Your task to perform on an android device: Add "alienware area 51" to the cart on costco, then select checkout. Image 0: 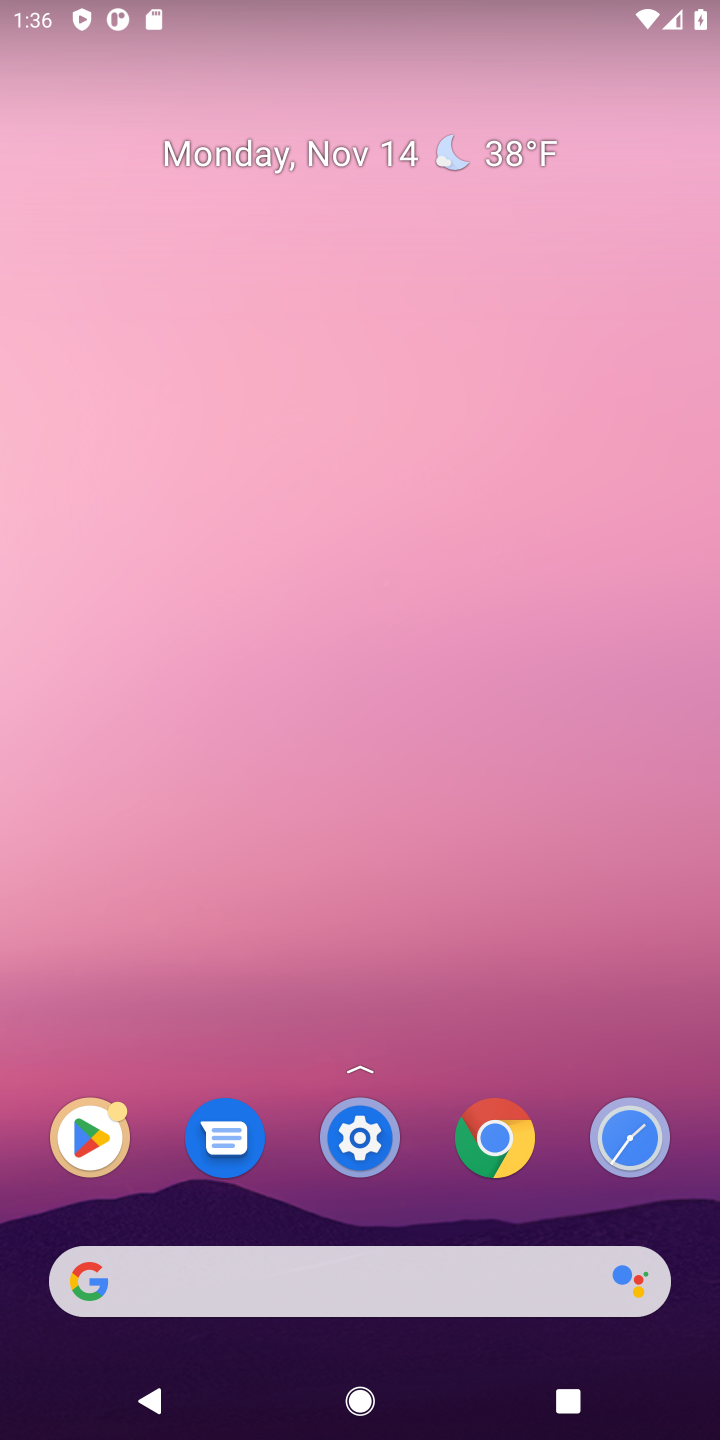
Step 0: click (508, 1111)
Your task to perform on an android device: Add "alienware area 51" to the cart on costco, then select checkout. Image 1: 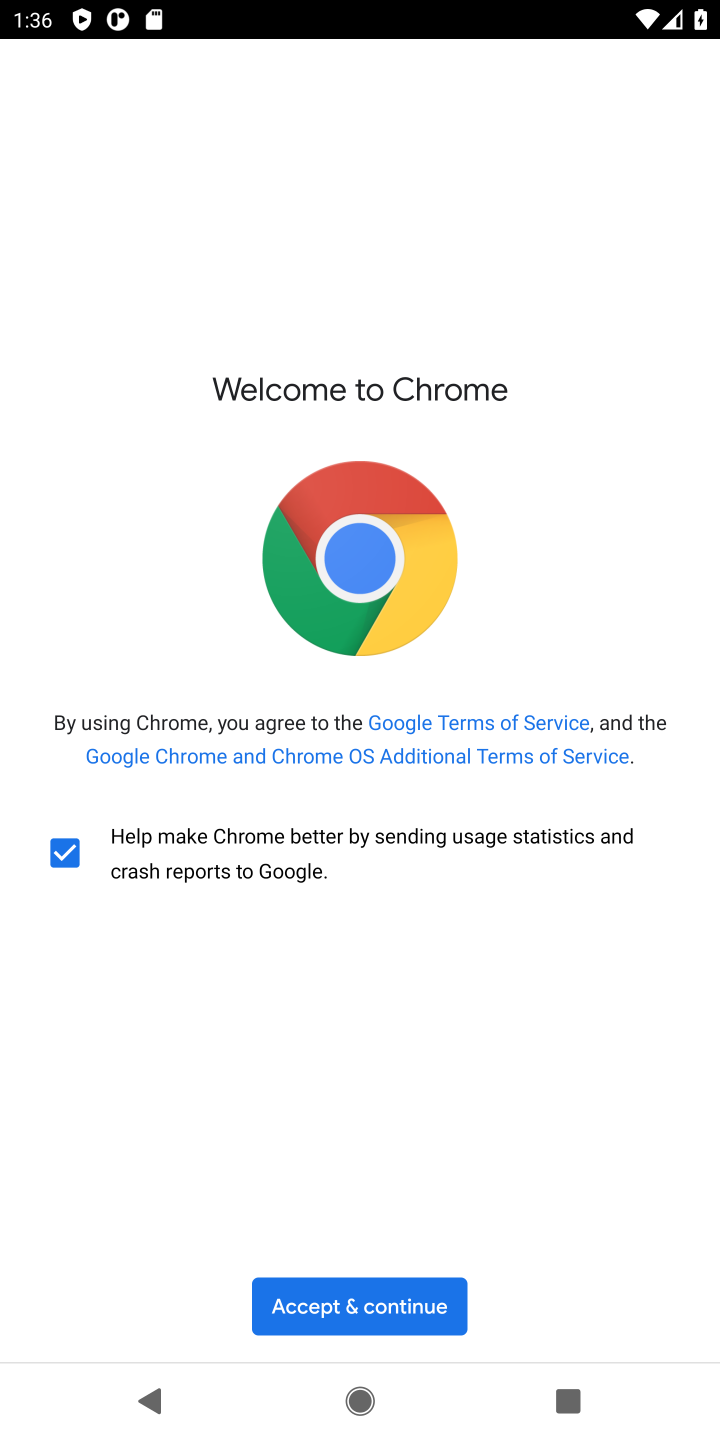
Step 1: click (408, 1311)
Your task to perform on an android device: Add "alienware area 51" to the cart on costco, then select checkout. Image 2: 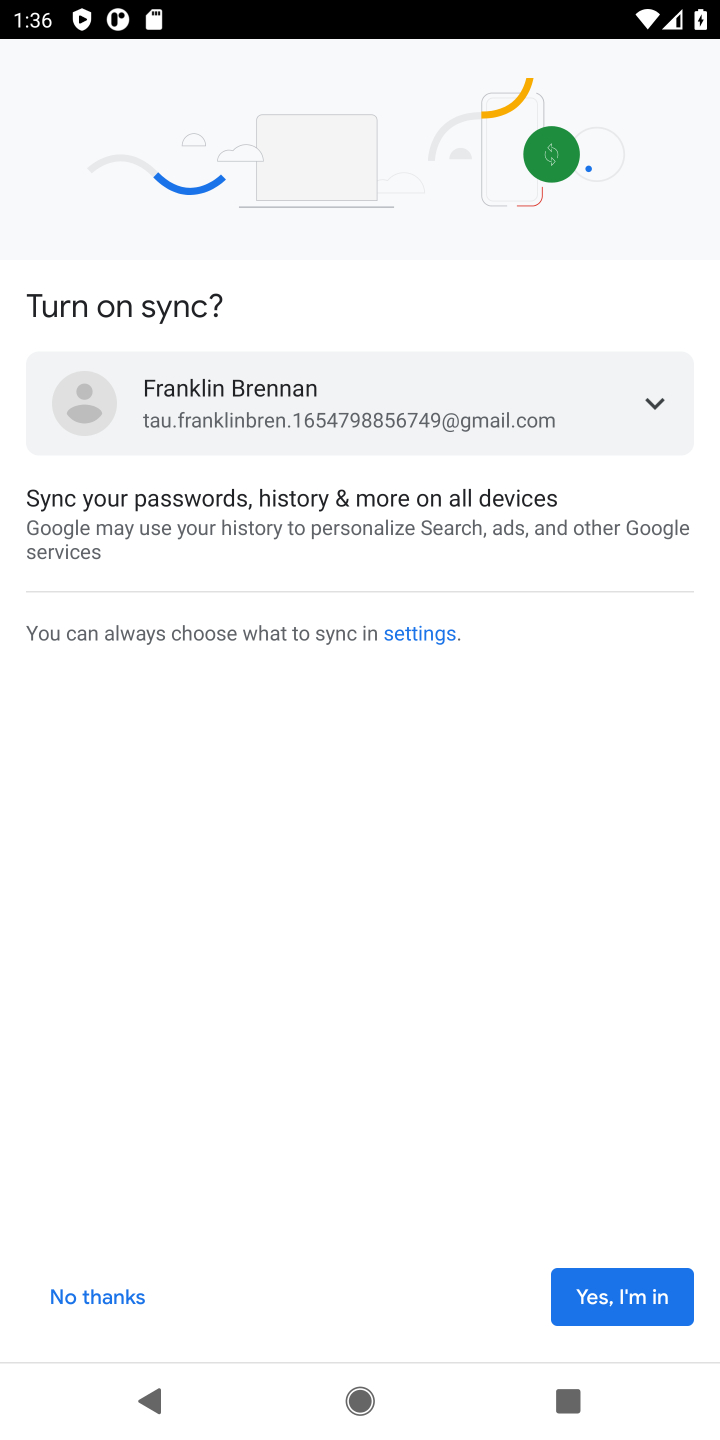
Step 2: click (623, 1292)
Your task to perform on an android device: Add "alienware area 51" to the cart on costco, then select checkout. Image 3: 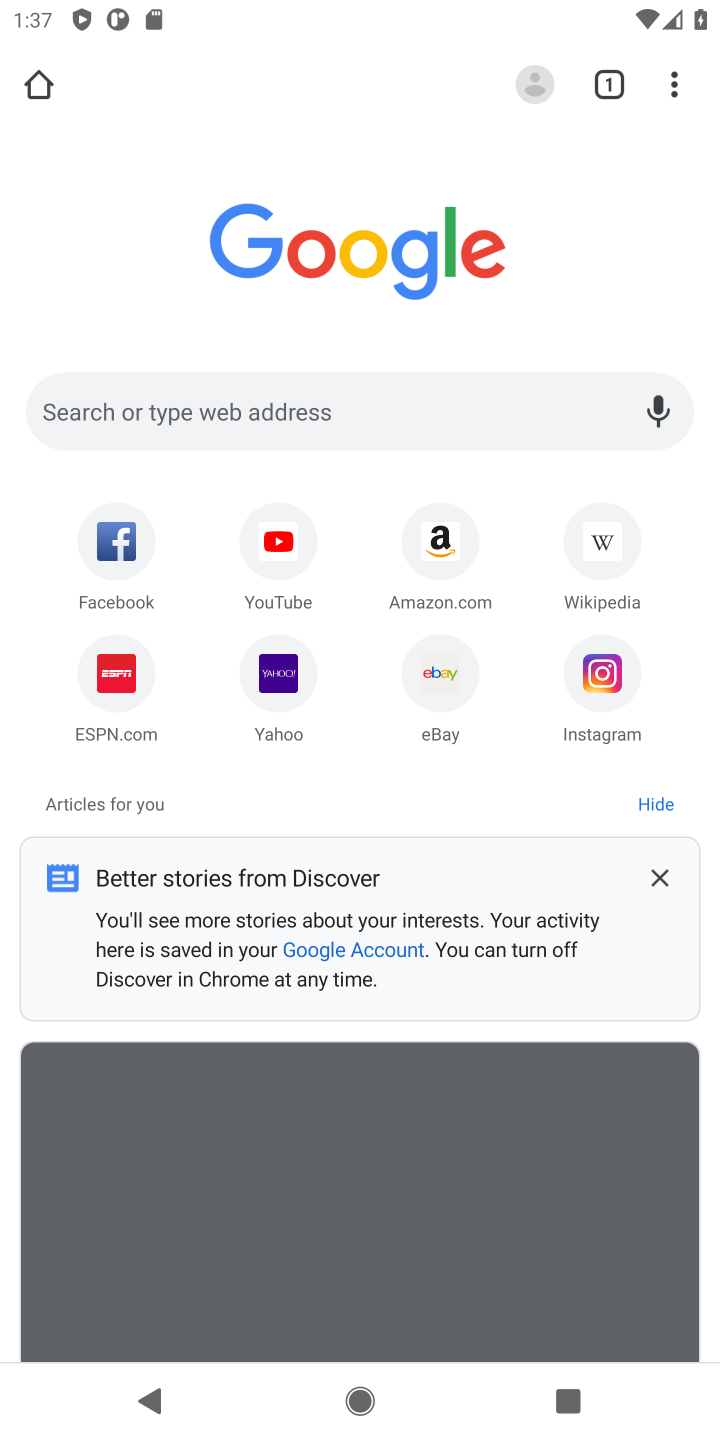
Step 3: click (404, 400)
Your task to perform on an android device: Add "alienware area 51" to the cart on costco, then select checkout. Image 4: 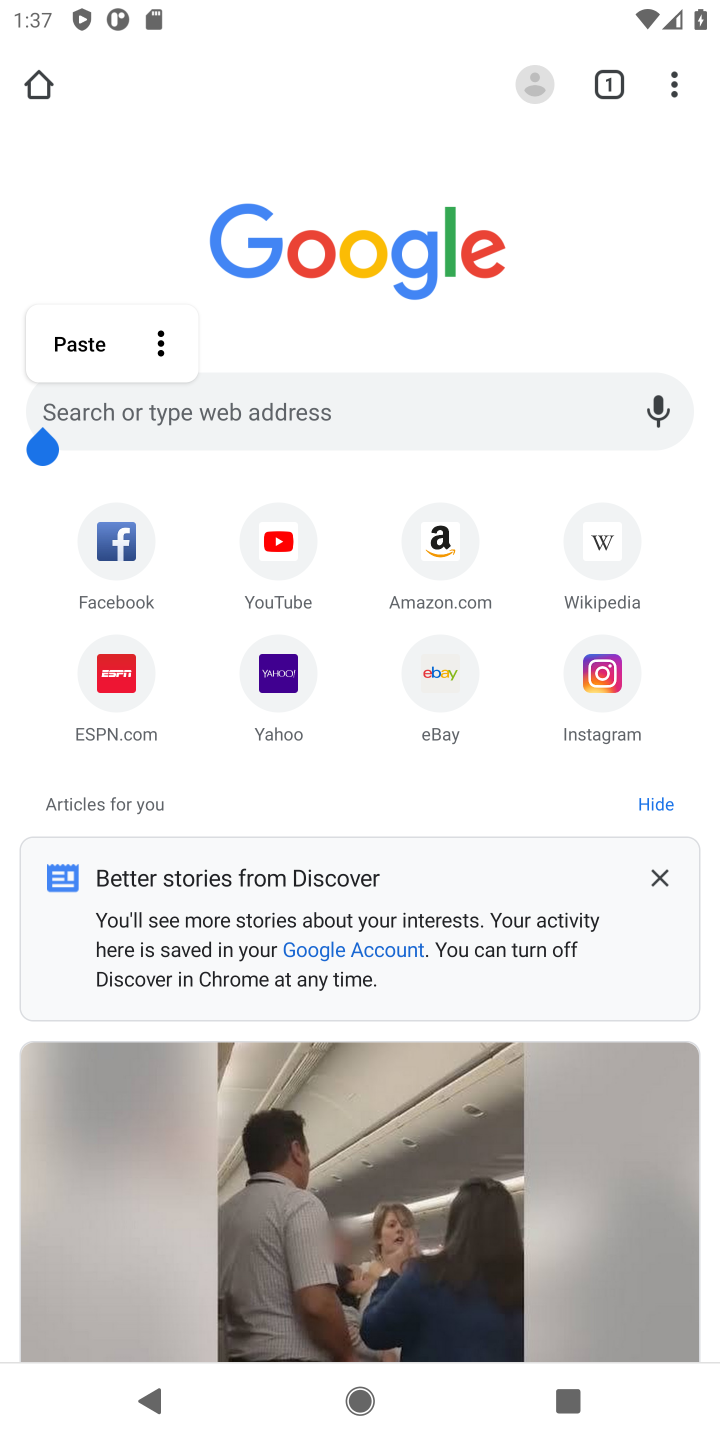
Step 4: press enter
Your task to perform on an android device: Add "alienware area 51" to the cart on costco, then select checkout. Image 5: 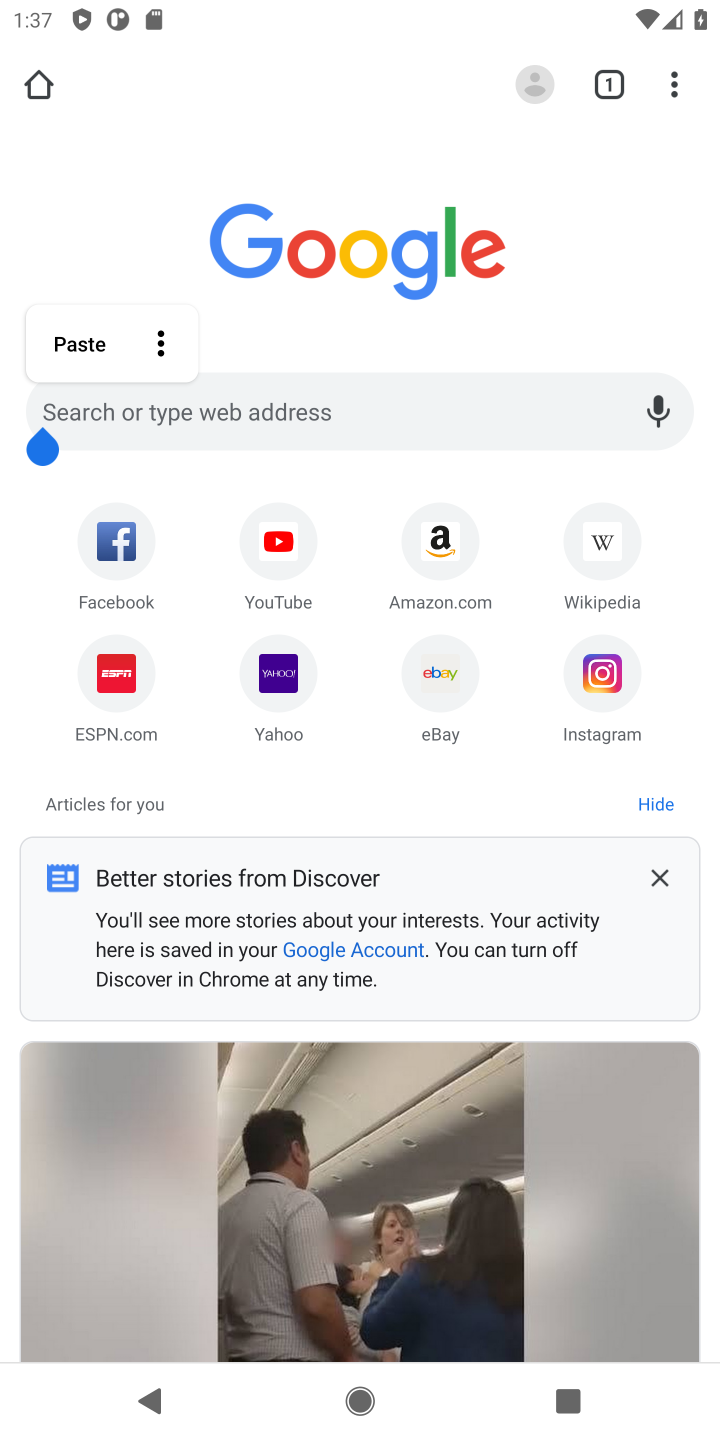
Step 5: type "costco"
Your task to perform on an android device: Add "alienware area 51" to the cart on costco, then select checkout. Image 6: 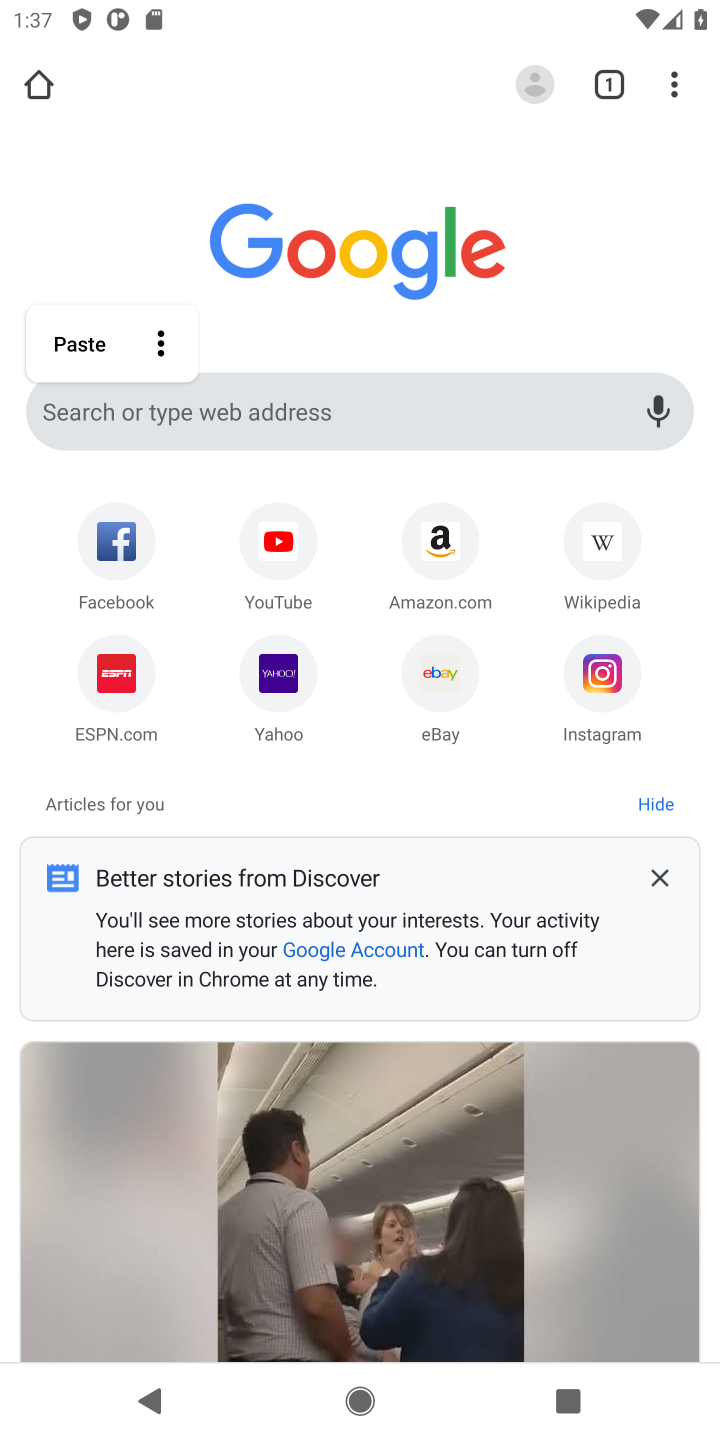
Step 6: click (432, 404)
Your task to perform on an android device: Add "alienware area 51" to the cart on costco, then select checkout. Image 7: 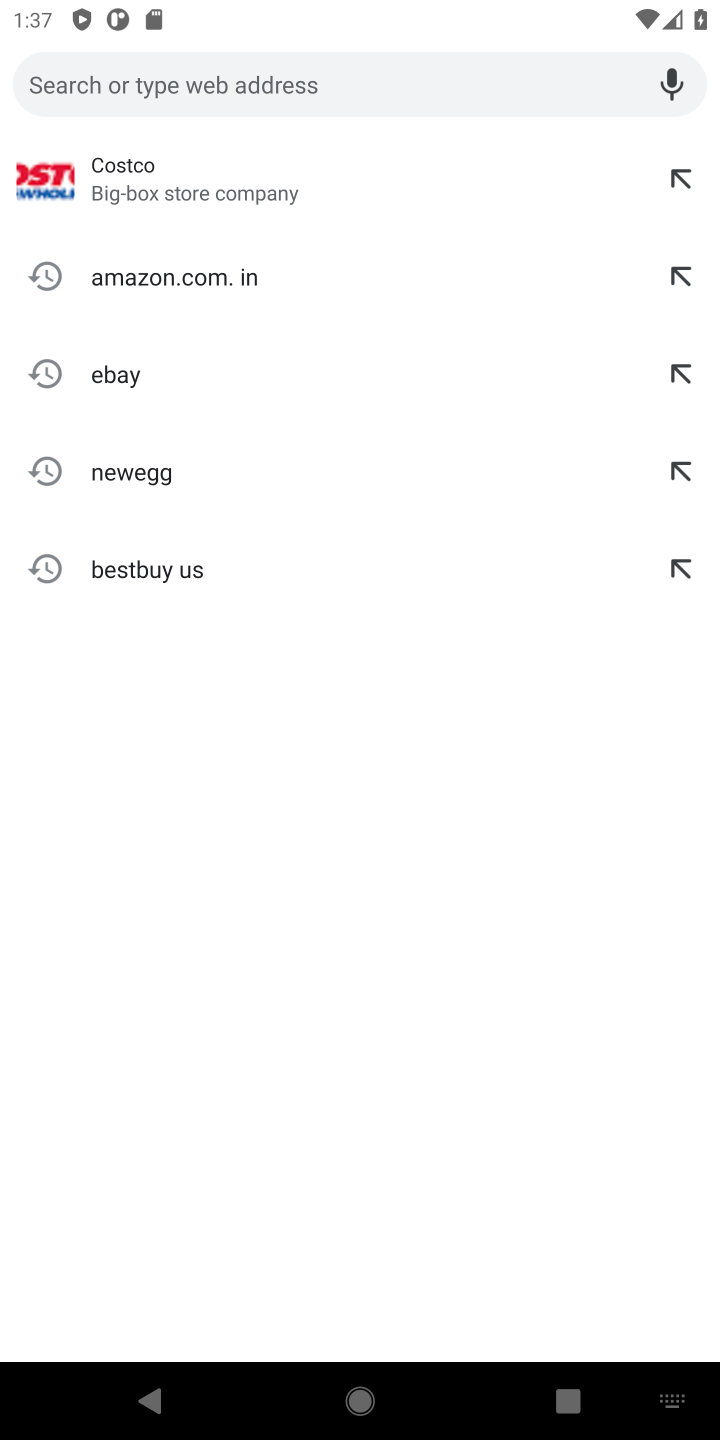
Step 7: click (147, 175)
Your task to perform on an android device: Add "alienware area 51" to the cart on costco, then select checkout. Image 8: 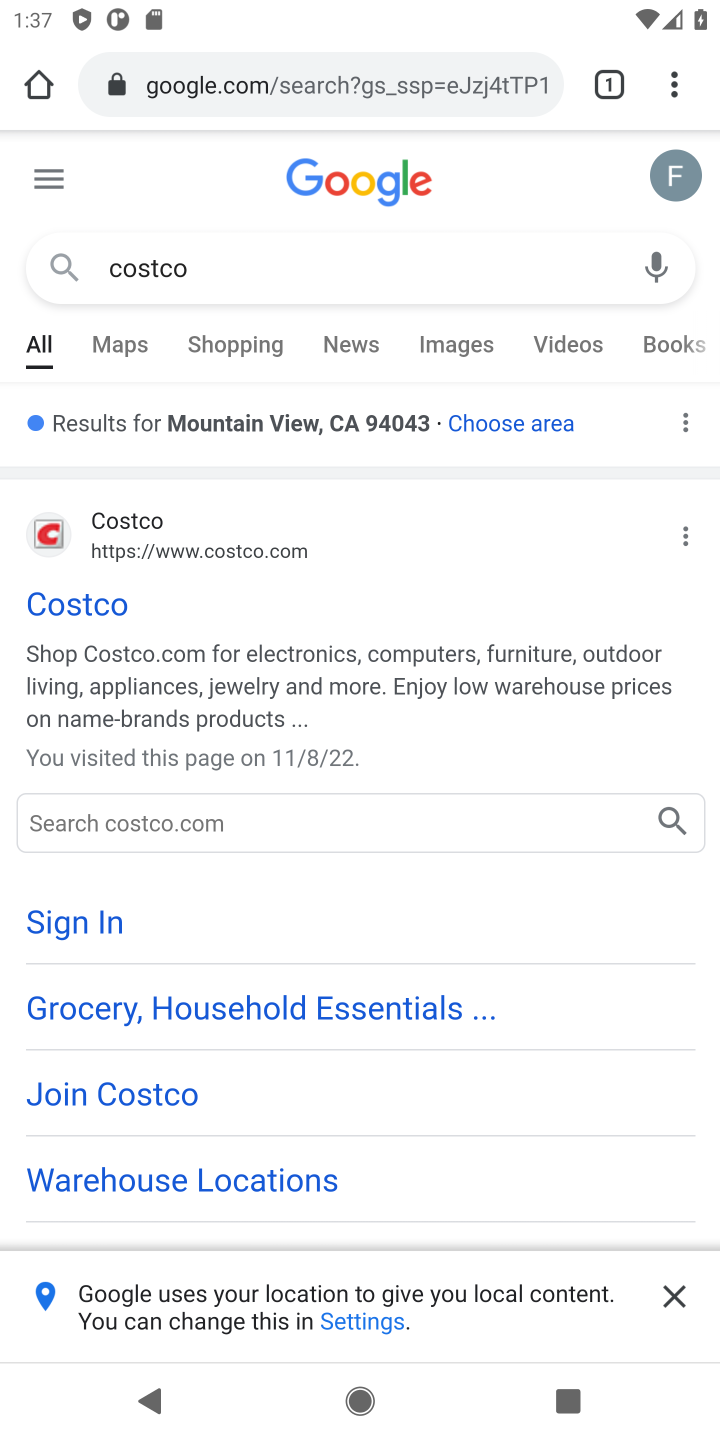
Step 8: click (259, 541)
Your task to perform on an android device: Add "alienware area 51" to the cart on costco, then select checkout. Image 9: 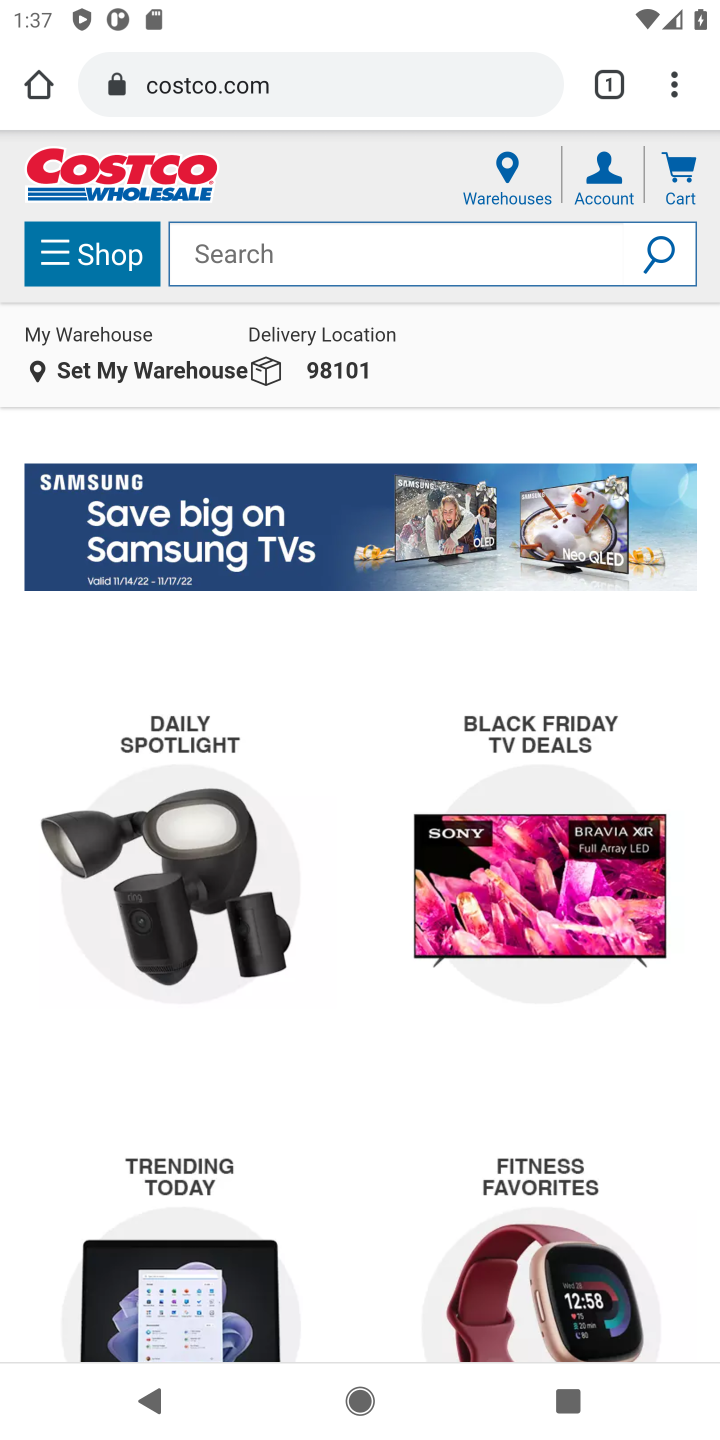
Step 9: click (300, 244)
Your task to perform on an android device: Add "alienware area 51" to the cart on costco, then select checkout. Image 10: 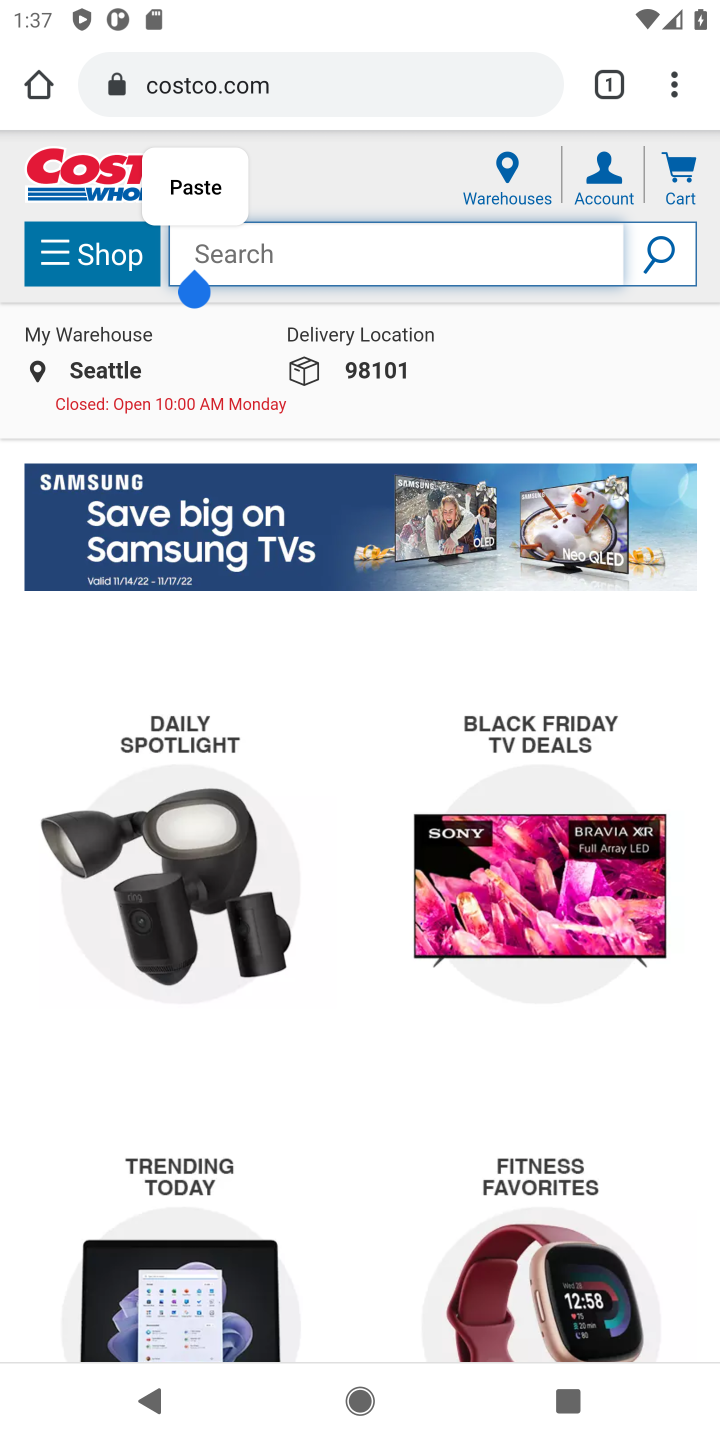
Step 10: type "alienware area 51"
Your task to perform on an android device: Add "alienware area 51" to the cart on costco, then select checkout. Image 11: 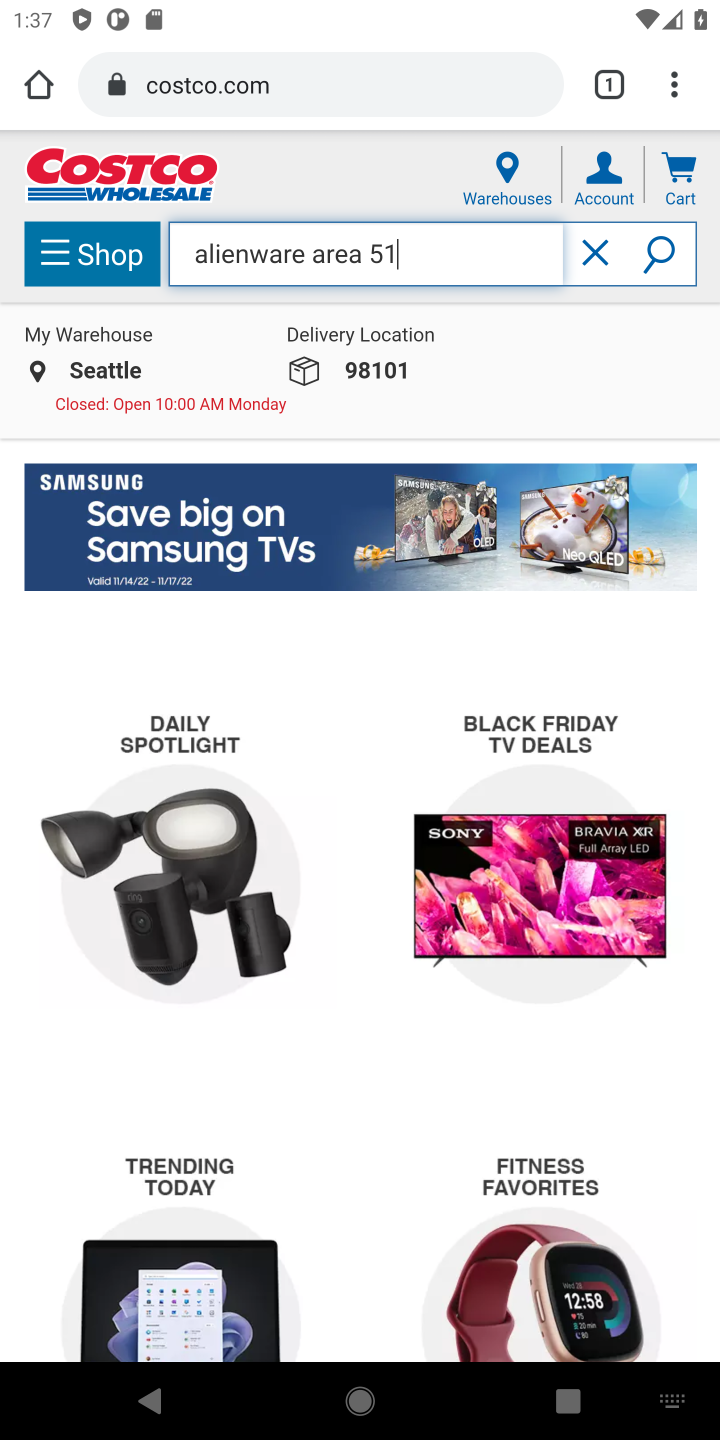
Step 11: press enter
Your task to perform on an android device: Add "alienware area 51" to the cart on costco, then select checkout. Image 12: 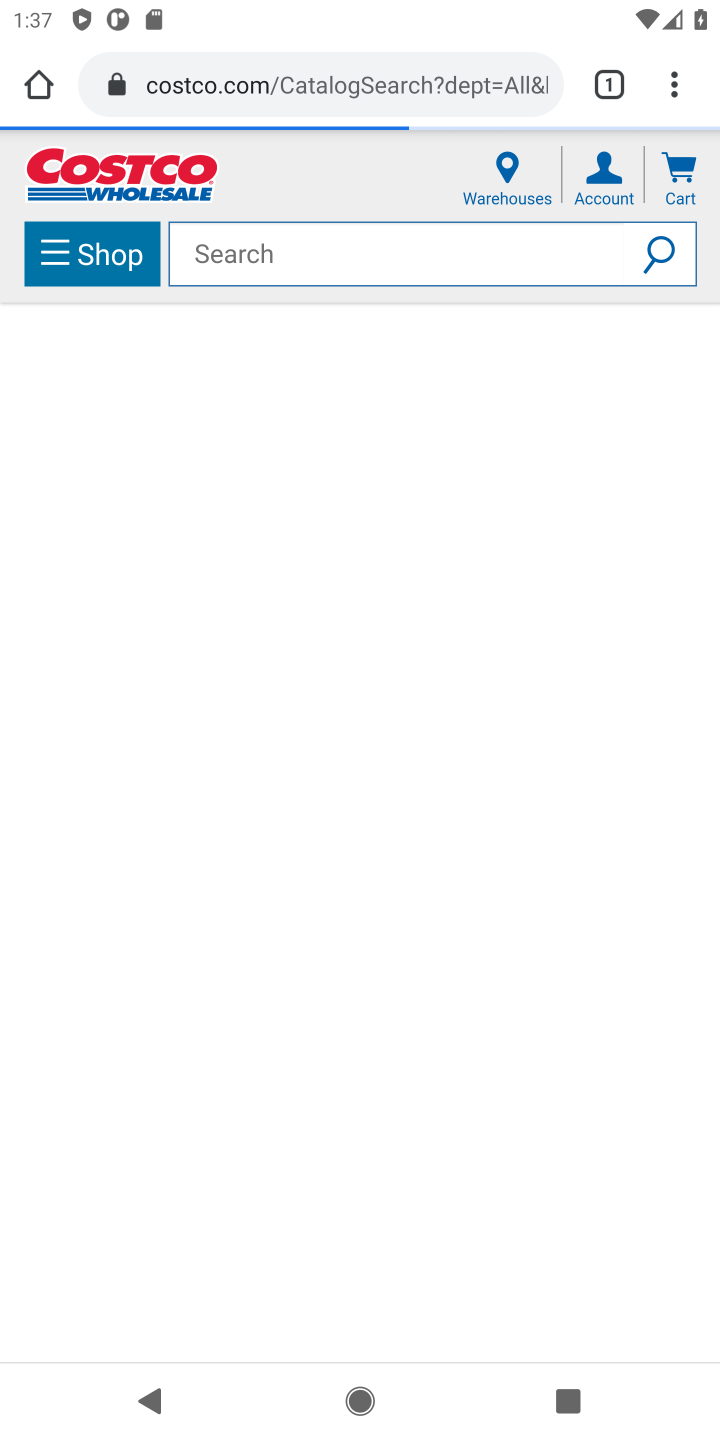
Step 12: click (679, 246)
Your task to perform on an android device: Add "alienware area 51" to the cart on costco, then select checkout. Image 13: 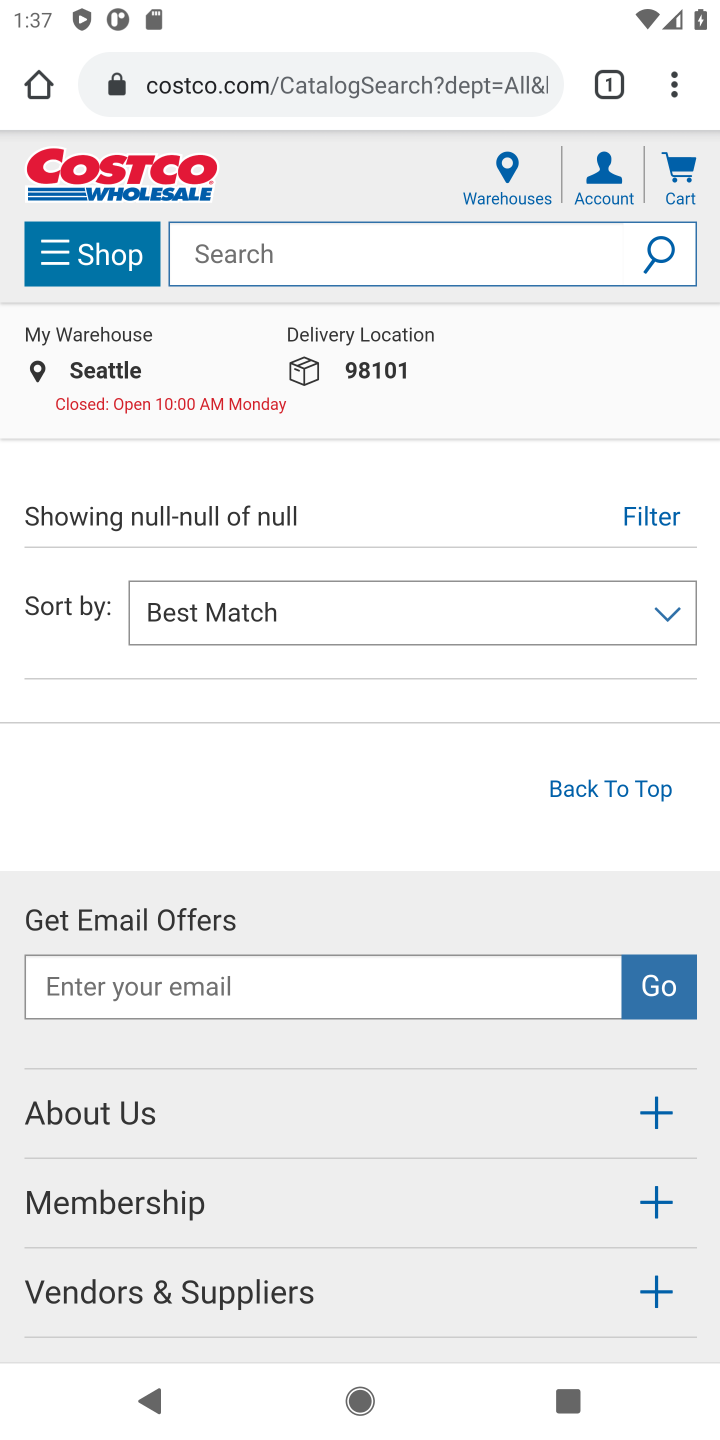
Step 13: click (441, 242)
Your task to perform on an android device: Add "alienware area 51" to the cart on costco, then select checkout. Image 14: 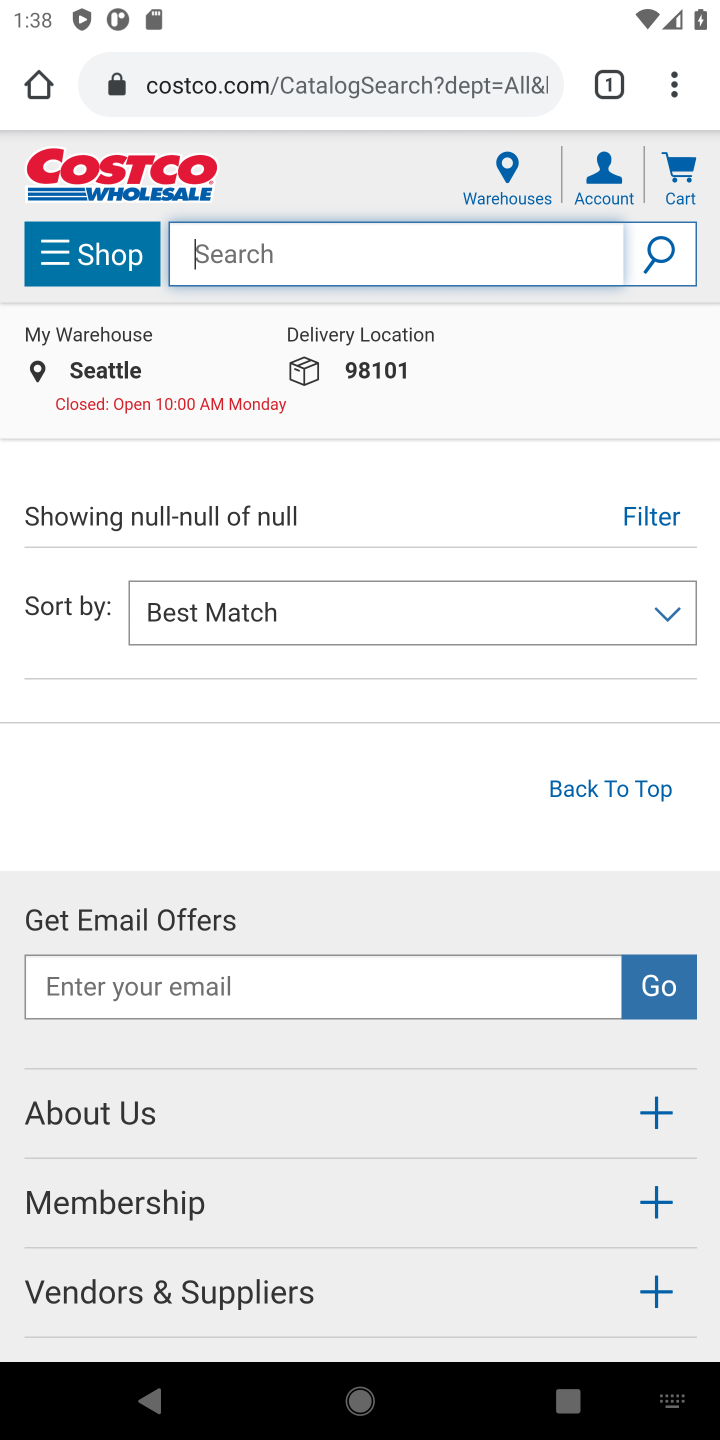
Step 14: type "alienware area 51"
Your task to perform on an android device: Add "alienware area 51" to the cart on costco, then select checkout. Image 15: 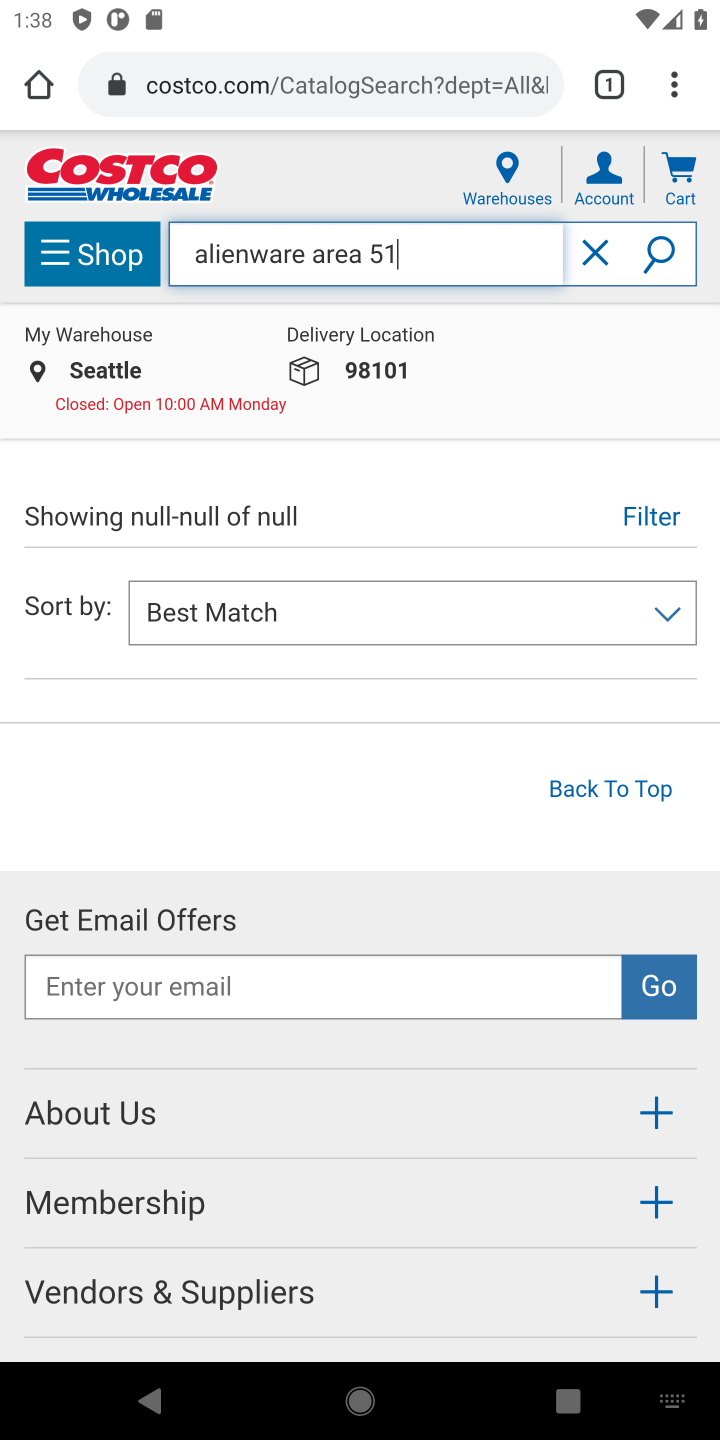
Step 15: press enter
Your task to perform on an android device: Add "alienware area 51" to the cart on costco, then select checkout. Image 16: 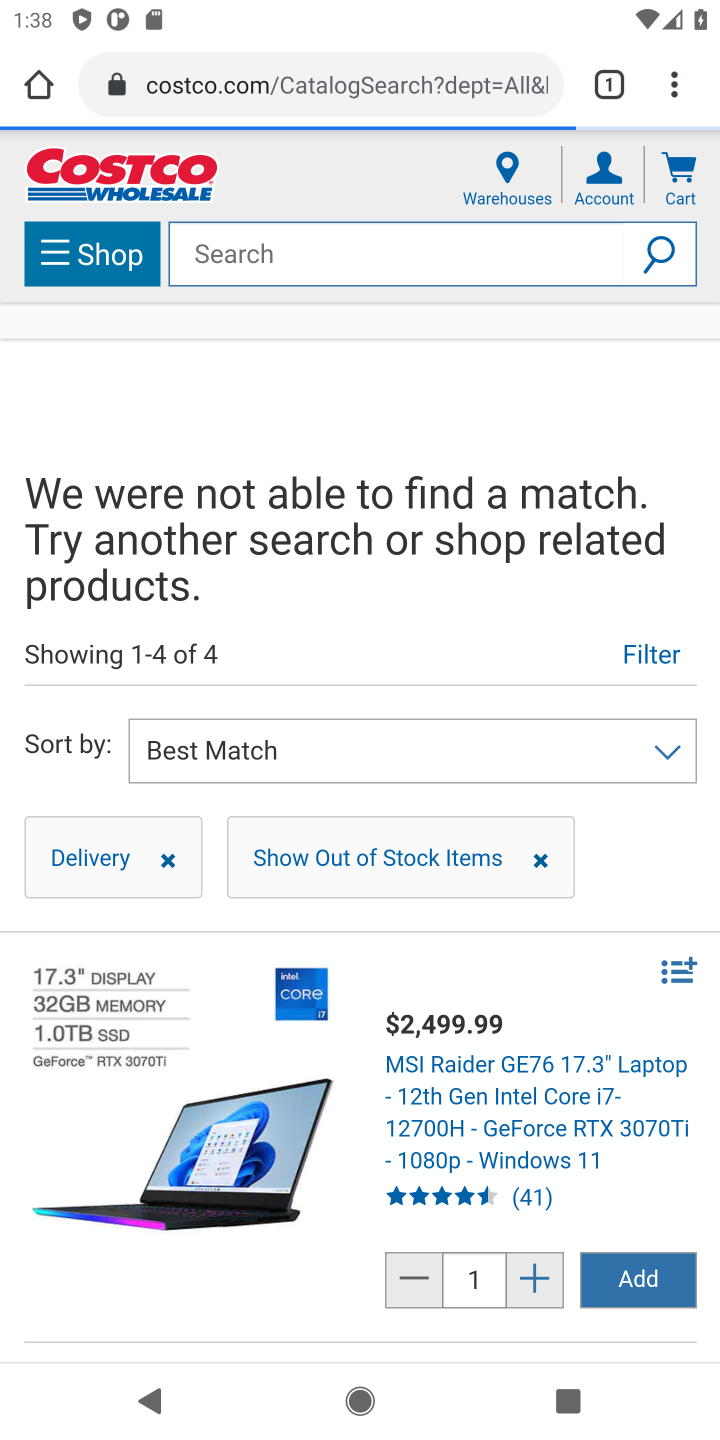
Step 16: click (653, 264)
Your task to perform on an android device: Add "alienware area 51" to the cart on costco, then select checkout. Image 17: 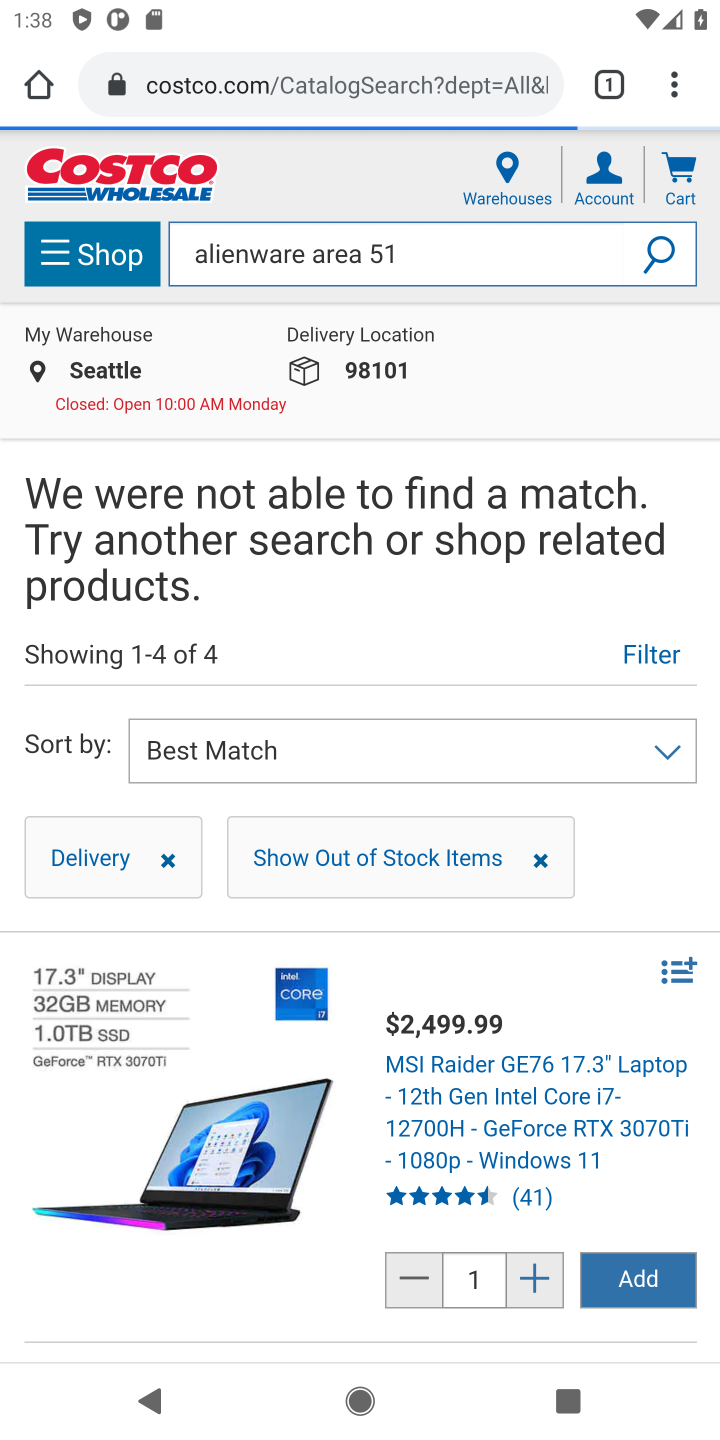
Step 17: task complete